Your task to perform on an android device: open app "Google Play Music" (install if not already installed) Image 0: 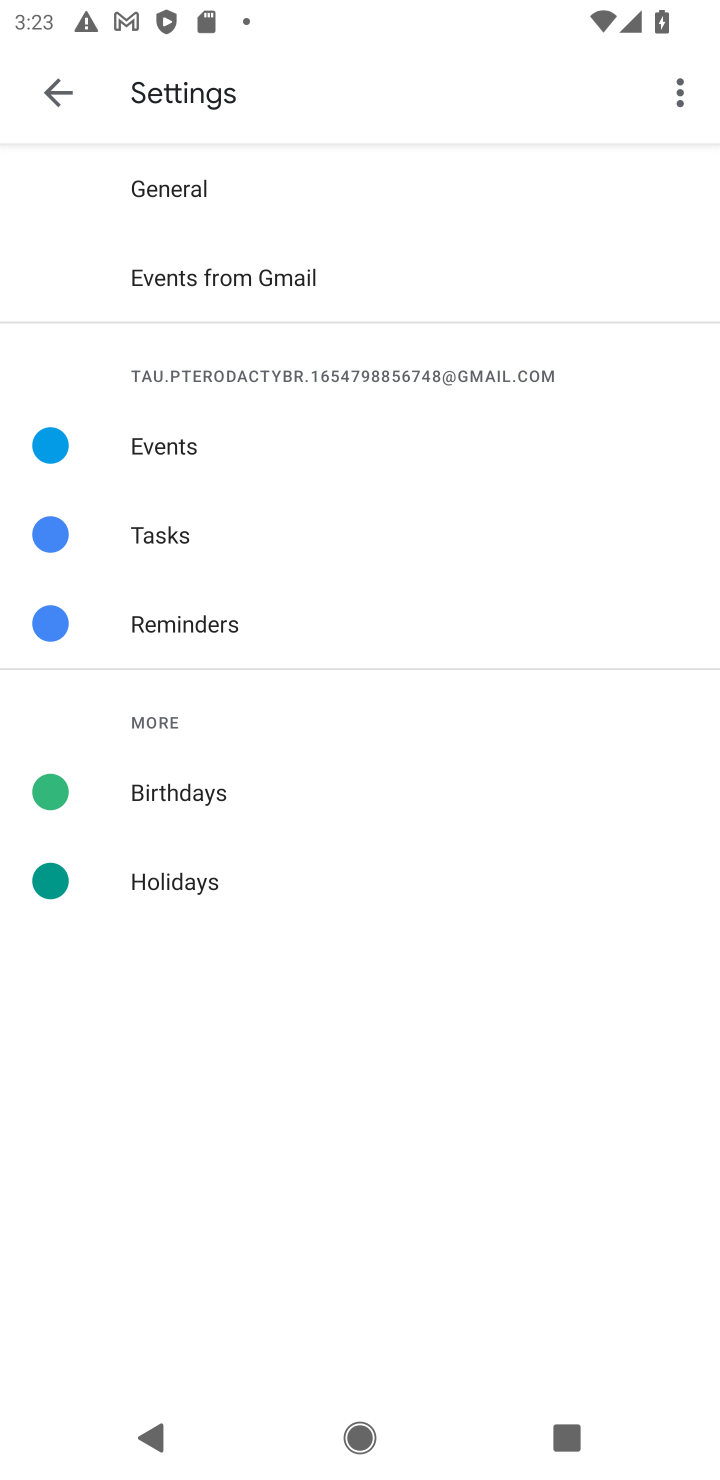
Step 0: press back button
Your task to perform on an android device: open app "Google Play Music" (install if not already installed) Image 1: 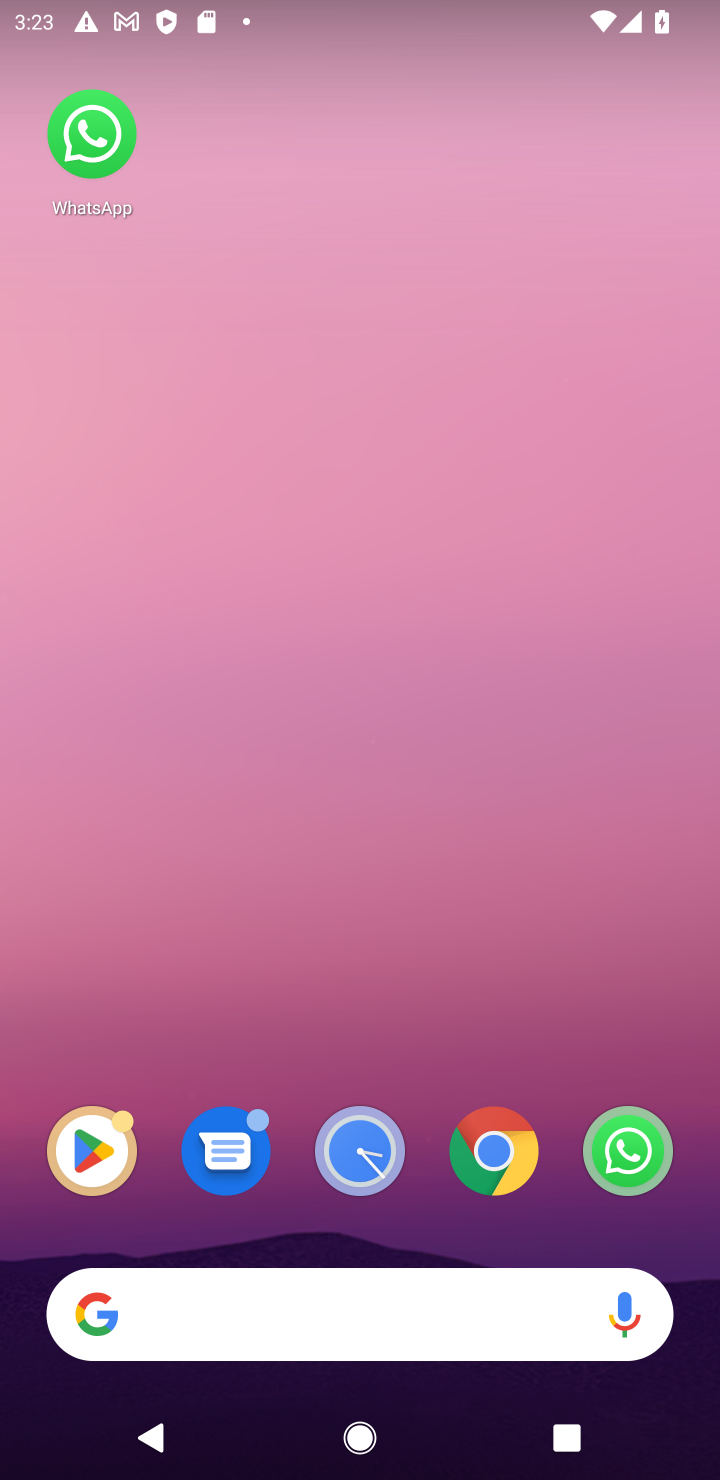
Step 1: drag from (535, 1065) to (401, 33)
Your task to perform on an android device: open app "Google Play Music" (install if not already installed) Image 2: 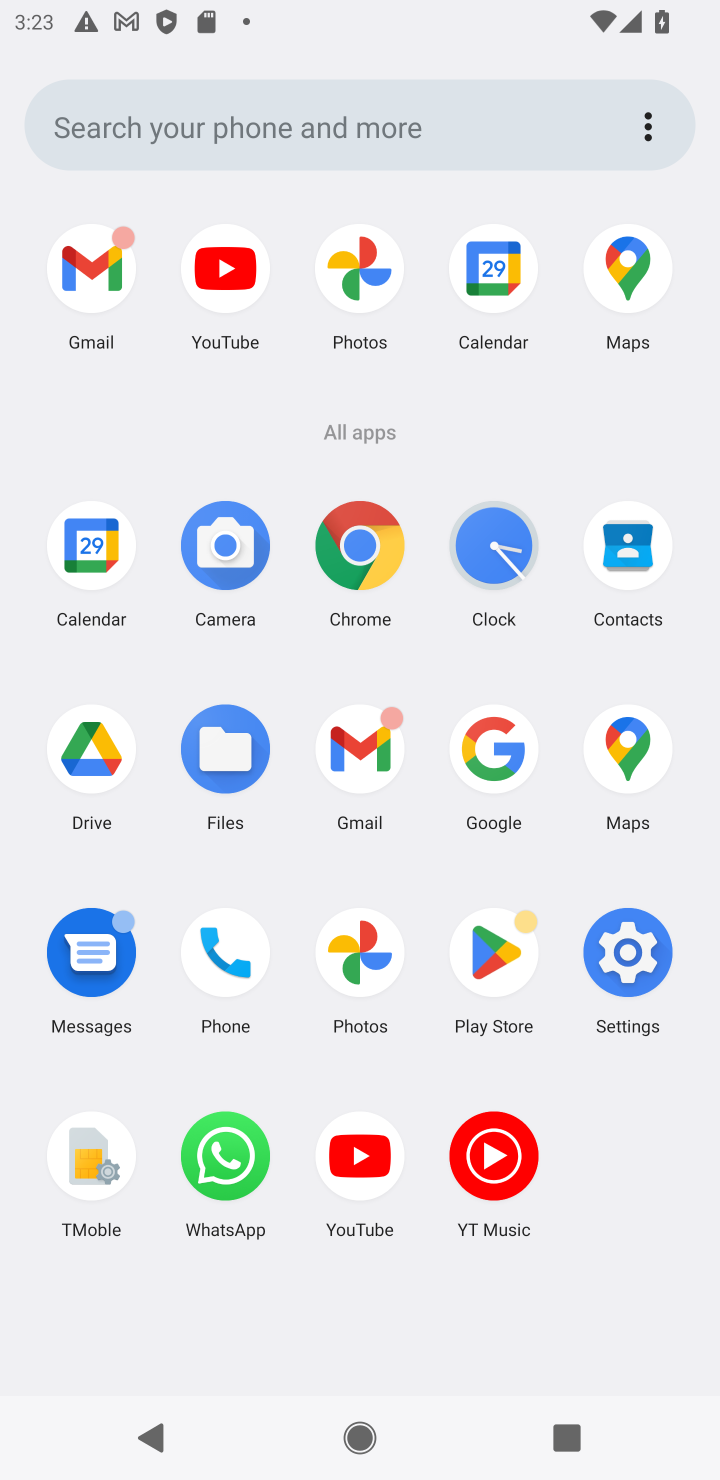
Step 2: click (476, 987)
Your task to perform on an android device: open app "Google Play Music" (install if not already installed) Image 3: 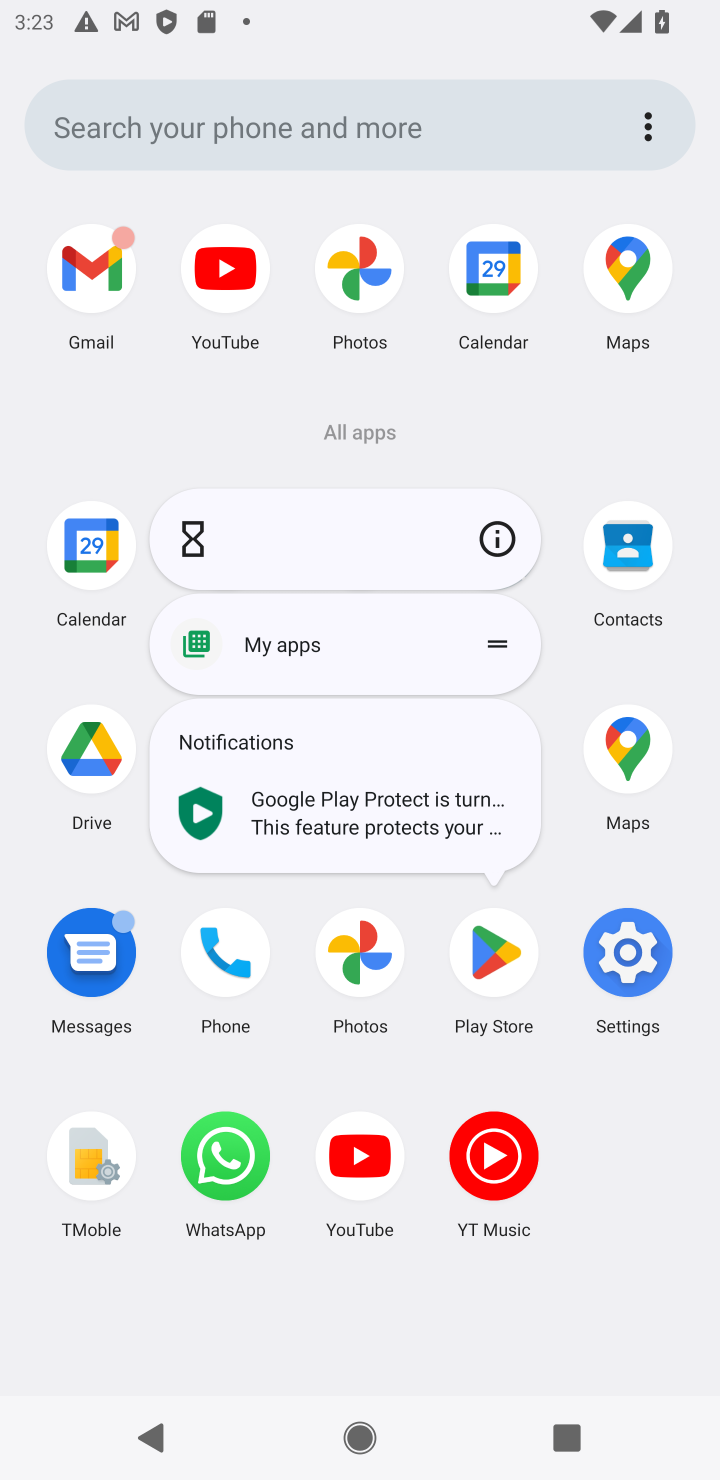
Step 3: click (507, 969)
Your task to perform on an android device: open app "Google Play Music" (install if not already installed) Image 4: 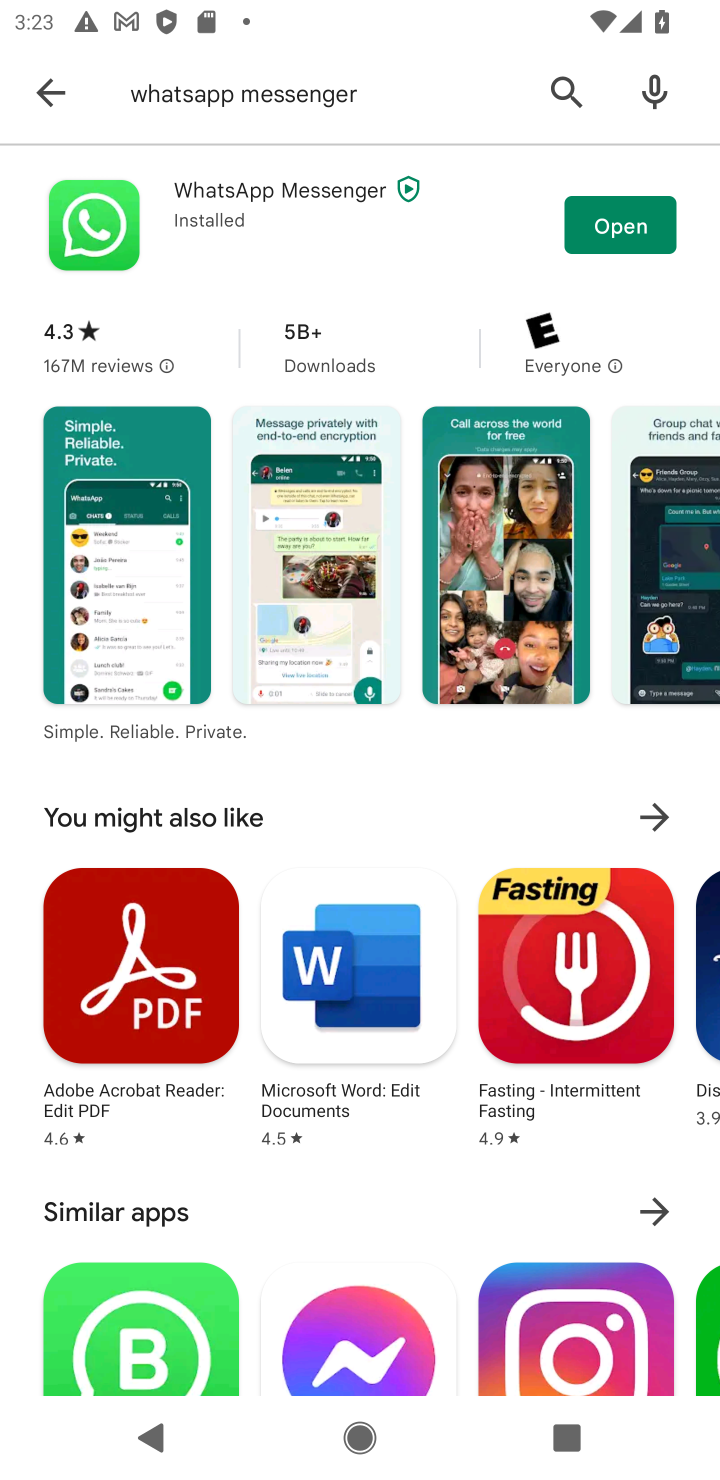
Step 4: click (566, 99)
Your task to perform on an android device: open app "Google Play Music" (install if not already installed) Image 5: 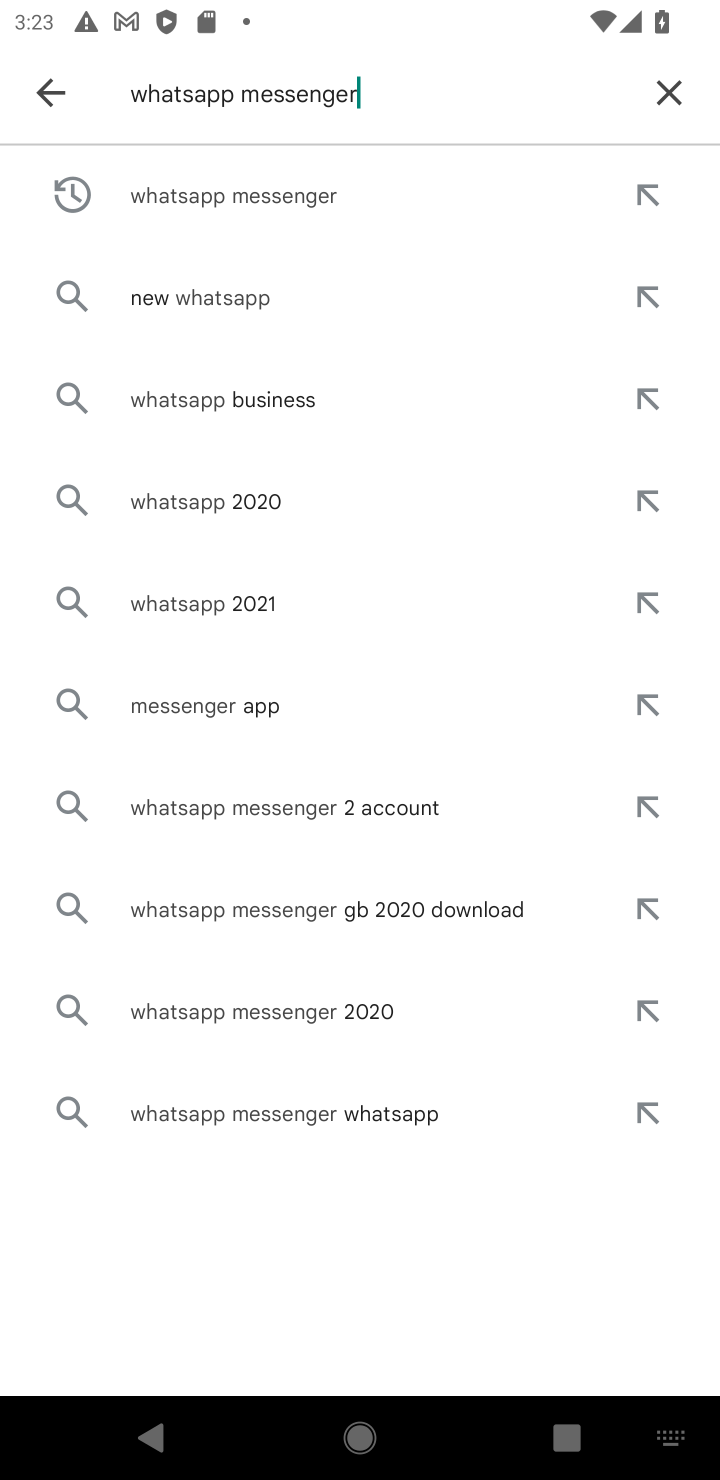
Step 5: click (566, 99)
Your task to perform on an android device: open app "Google Play Music" (install if not already installed) Image 6: 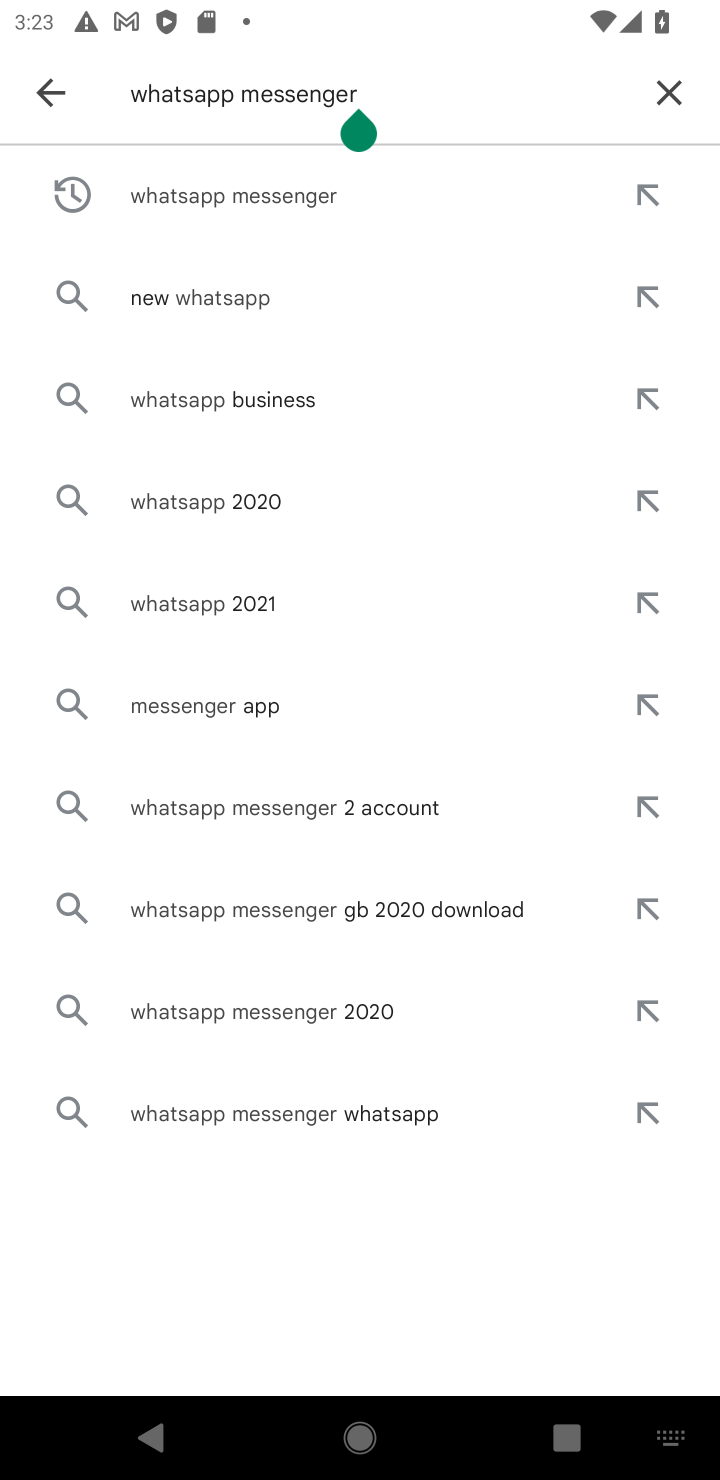
Step 6: click (694, 100)
Your task to perform on an android device: open app "Google Play Music" (install if not already installed) Image 7: 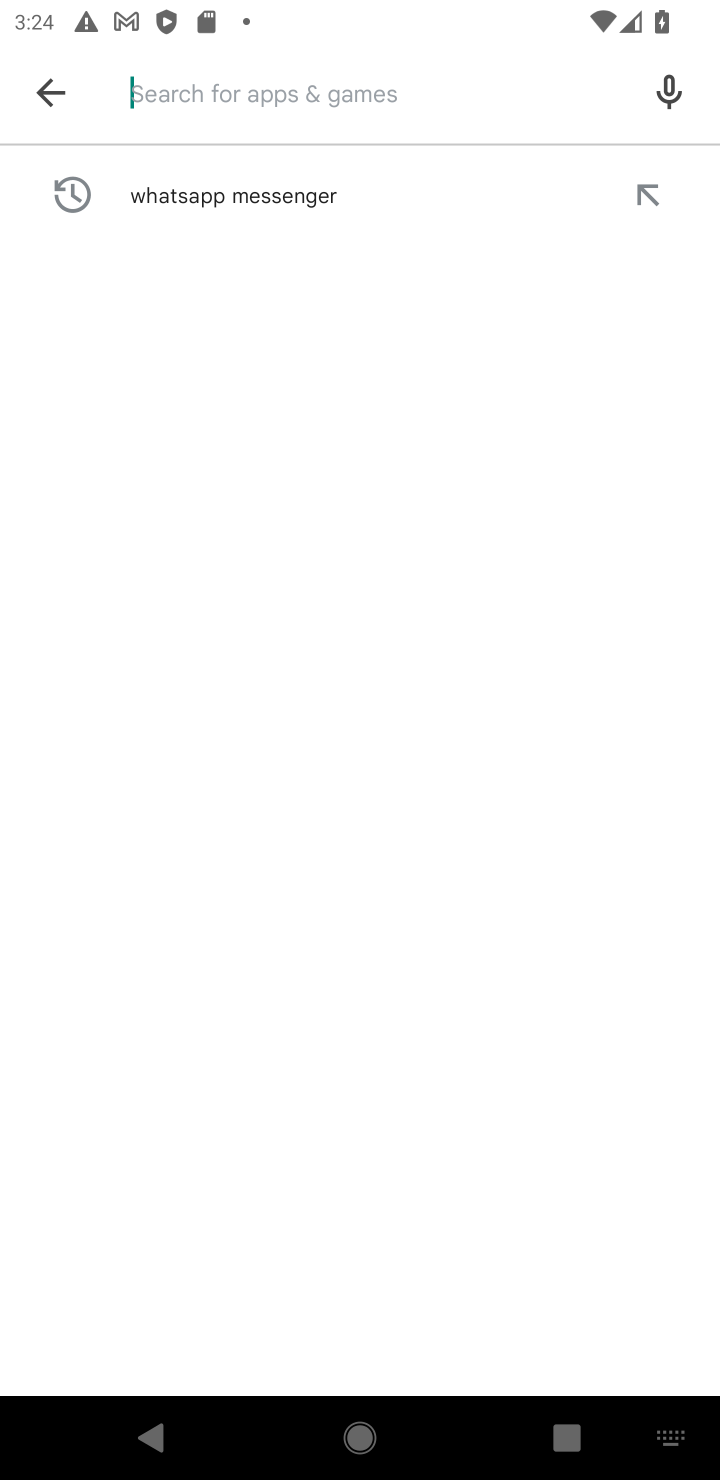
Step 7: type "Google Play Music"
Your task to perform on an android device: open app "Google Play Music" (install if not already installed) Image 8: 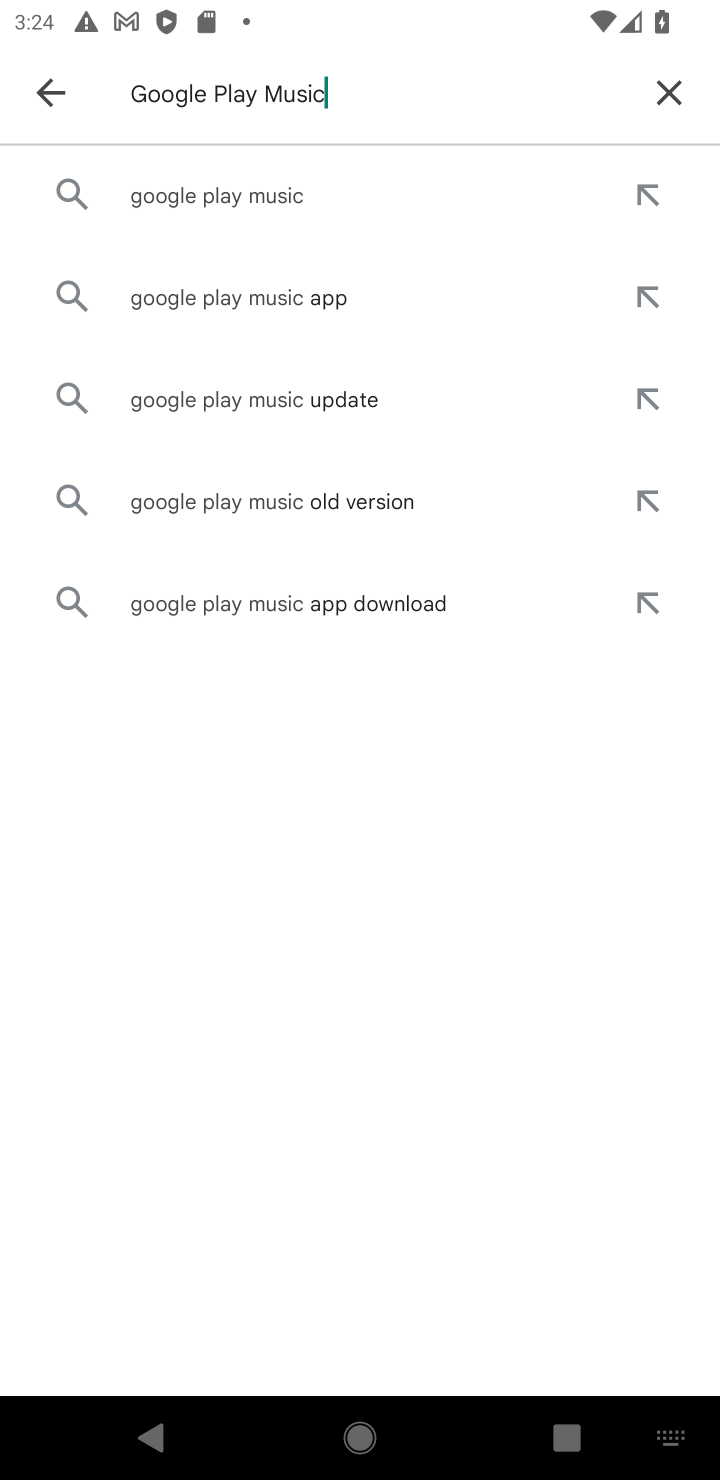
Step 8: click (128, 210)
Your task to perform on an android device: open app "Google Play Music" (install if not already installed) Image 9: 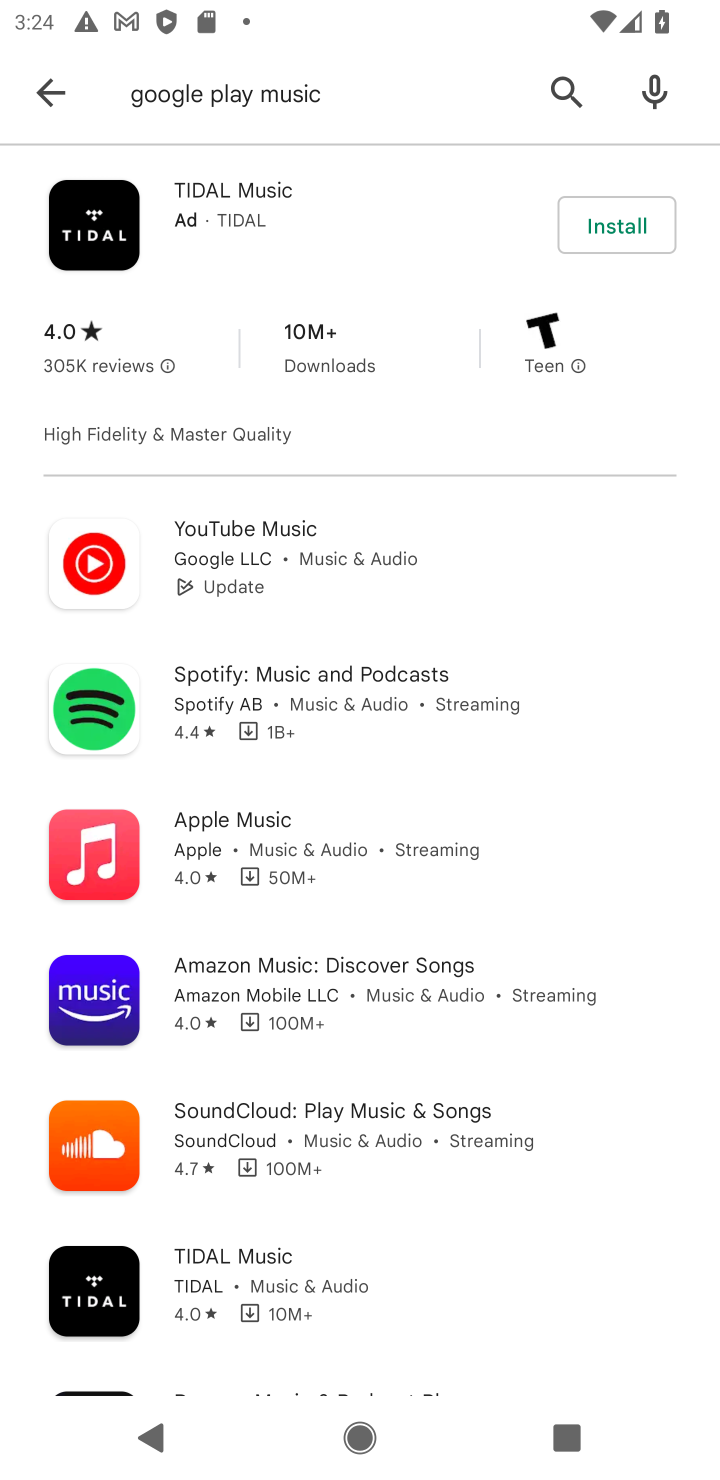
Step 9: task complete